Your task to perform on an android device: Empty the shopping cart on ebay. Search for "logitech g pro" on ebay, select the first entry, and add it to the cart. Image 0: 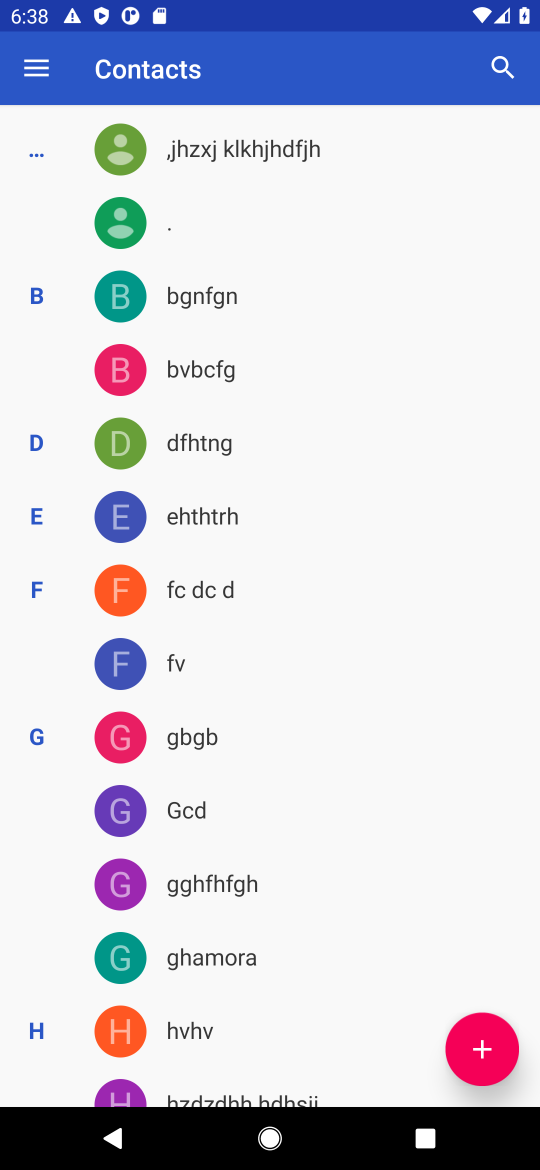
Step 0: press home button
Your task to perform on an android device: Empty the shopping cart on ebay. Search for "logitech g pro" on ebay, select the first entry, and add it to the cart. Image 1: 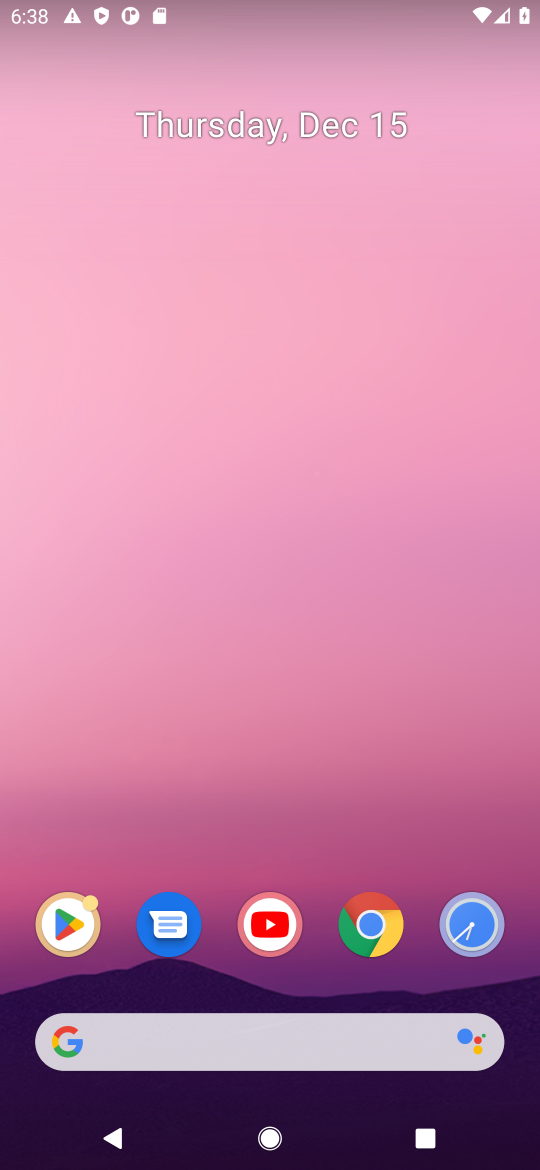
Step 1: click (375, 903)
Your task to perform on an android device: Empty the shopping cart on ebay. Search for "logitech g pro" on ebay, select the first entry, and add it to the cart. Image 2: 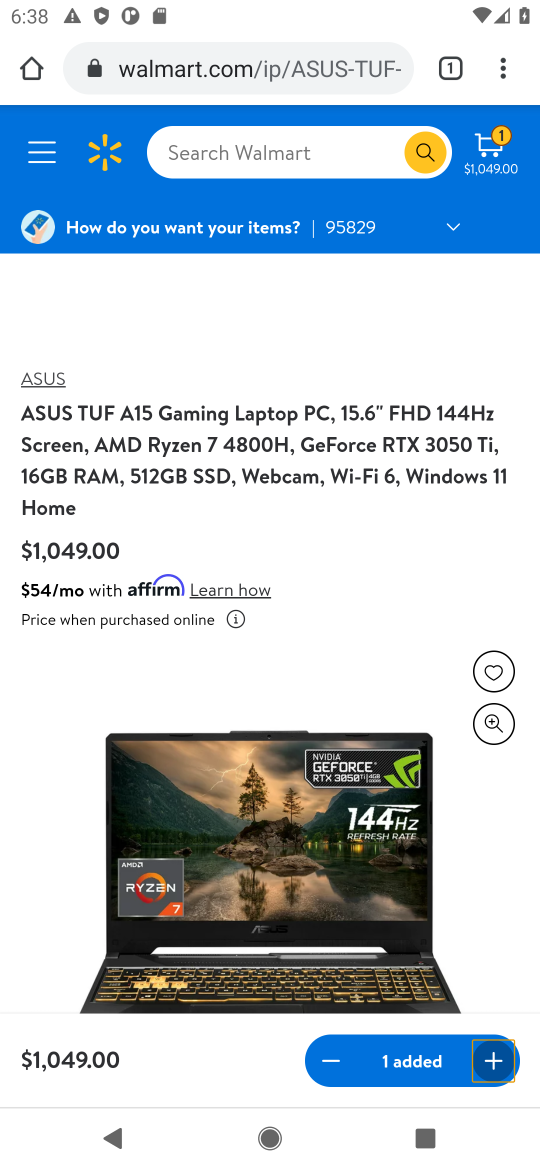
Step 2: click (172, 72)
Your task to perform on an android device: Empty the shopping cart on ebay. Search for "logitech g pro" on ebay, select the first entry, and add it to the cart. Image 3: 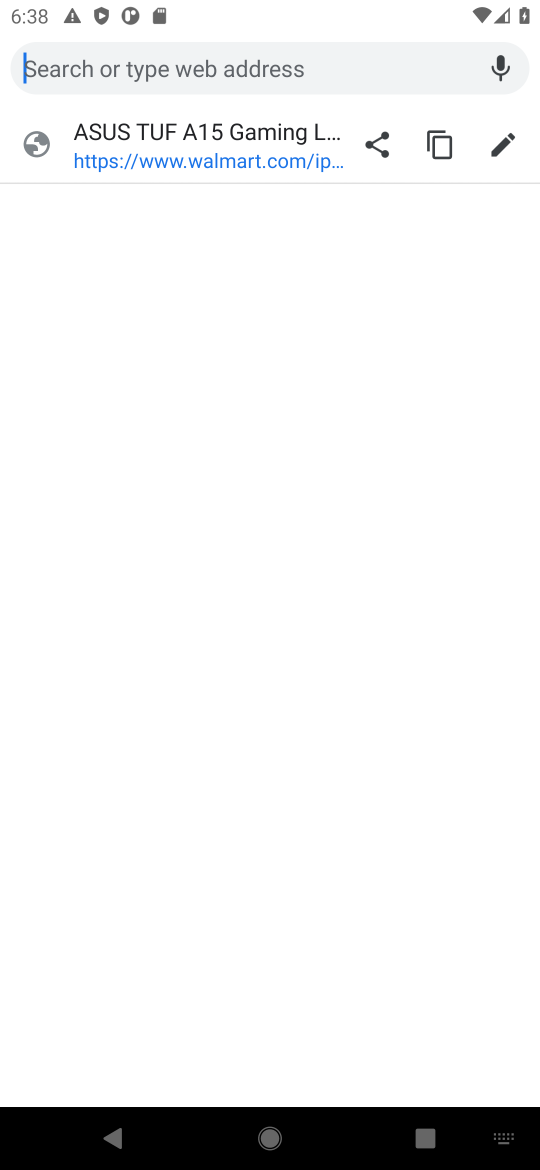
Step 3: type "ebay"
Your task to perform on an android device: Empty the shopping cart on ebay. Search for "logitech g pro" on ebay, select the first entry, and add it to the cart. Image 4: 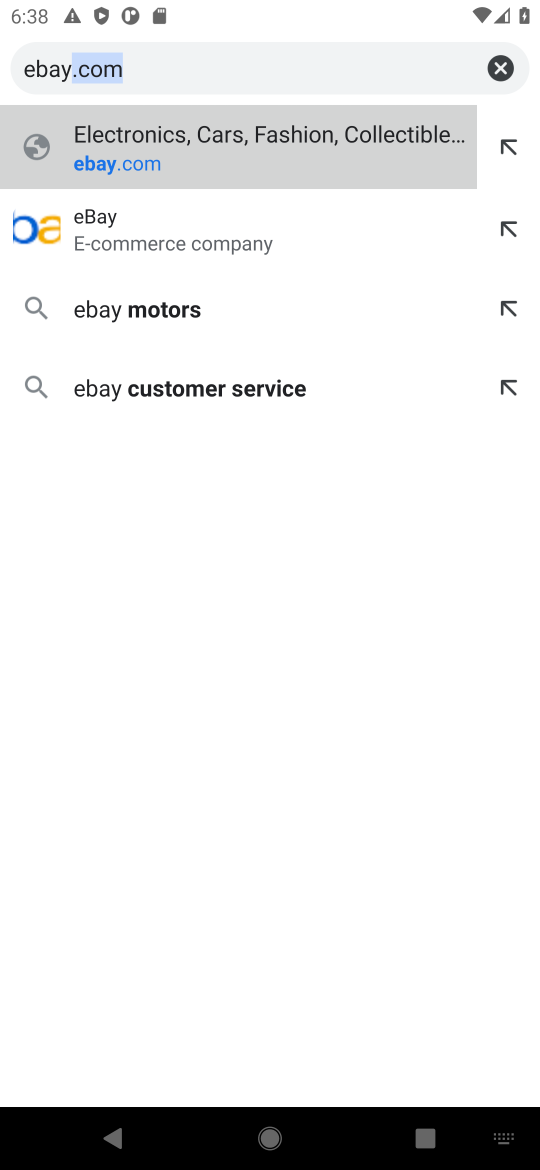
Step 4: click (210, 224)
Your task to perform on an android device: Empty the shopping cart on ebay. Search for "logitech g pro" on ebay, select the first entry, and add it to the cart. Image 5: 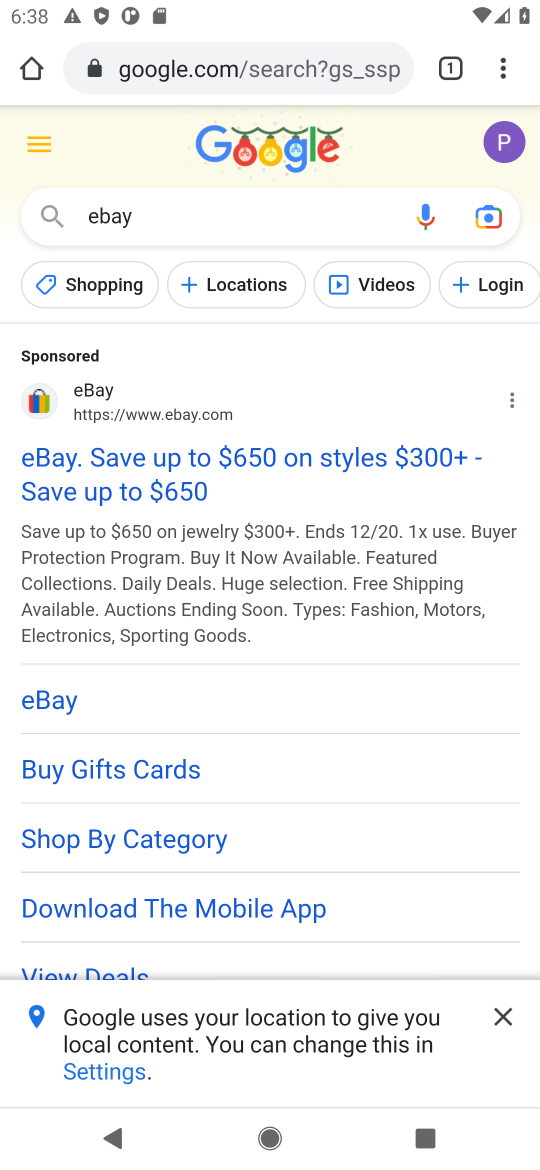
Step 5: click (40, 703)
Your task to perform on an android device: Empty the shopping cart on ebay. Search for "logitech g pro" on ebay, select the first entry, and add it to the cart. Image 6: 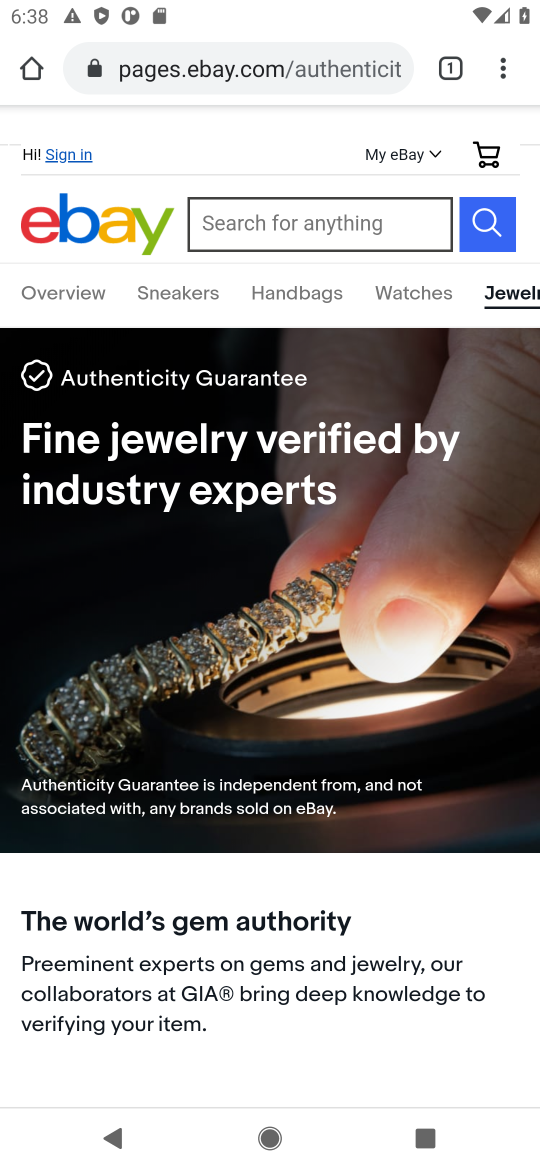
Step 6: click (484, 143)
Your task to perform on an android device: Empty the shopping cart on ebay. Search for "logitech g pro" on ebay, select the first entry, and add it to the cart. Image 7: 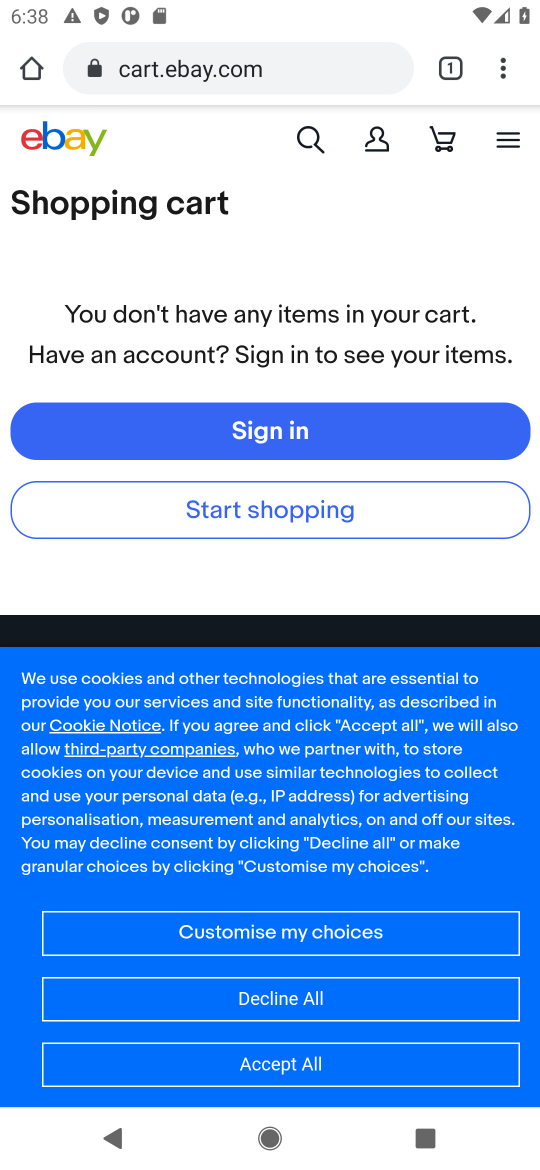
Step 7: click (314, 131)
Your task to perform on an android device: Empty the shopping cart on ebay. Search for "logitech g pro" on ebay, select the first entry, and add it to the cart. Image 8: 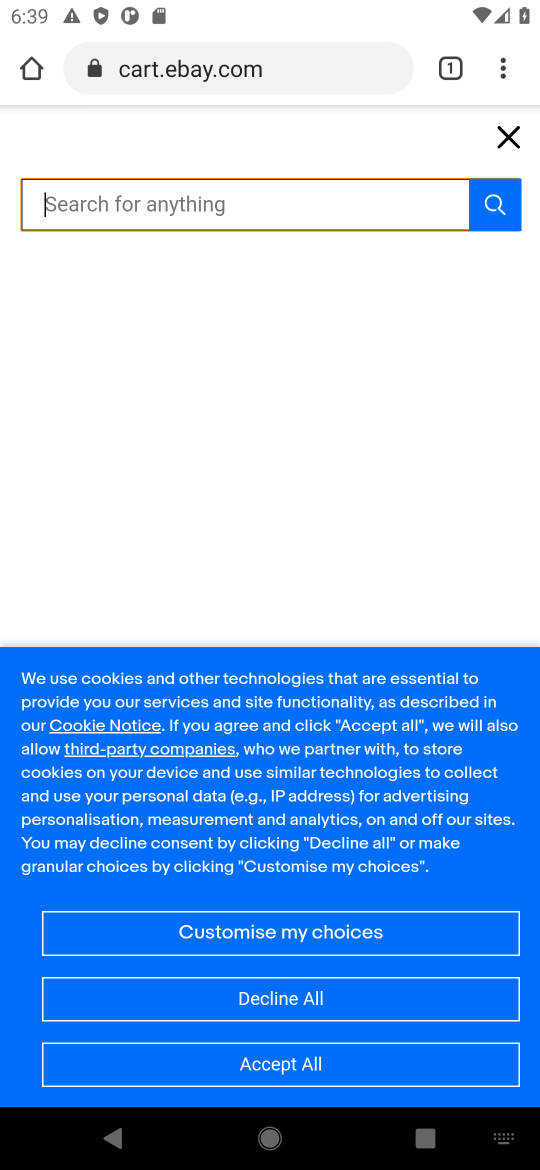
Step 8: type "logitech g pro"
Your task to perform on an android device: Empty the shopping cart on ebay. Search for "logitech g pro" on ebay, select the first entry, and add it to the cart. Image 9: 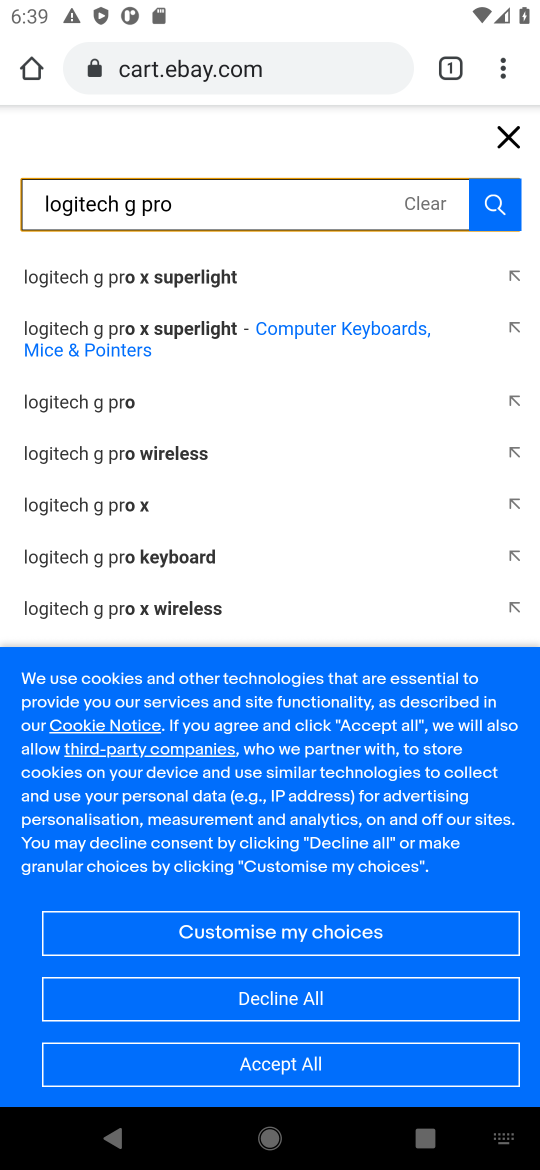
Step 9: click (507, 218)
Your task to perform on an android device: Empty the shopping cart on ebay. Search for "logitech g pro" on ebay, select the first entry, and add it to the cart. Image 10: 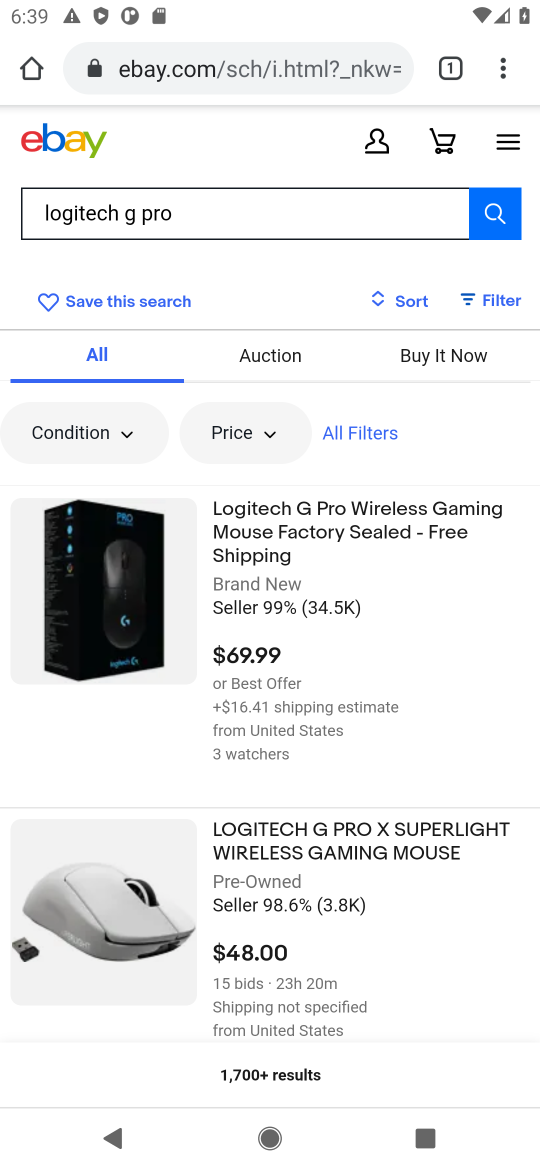
Step 10: click (321, 522)
Your task to perform on an android device: Empty the shopping cart on ebay. Search for "logitech g pro" on ebay, select the first entry, and add it to the cart. Image 11: 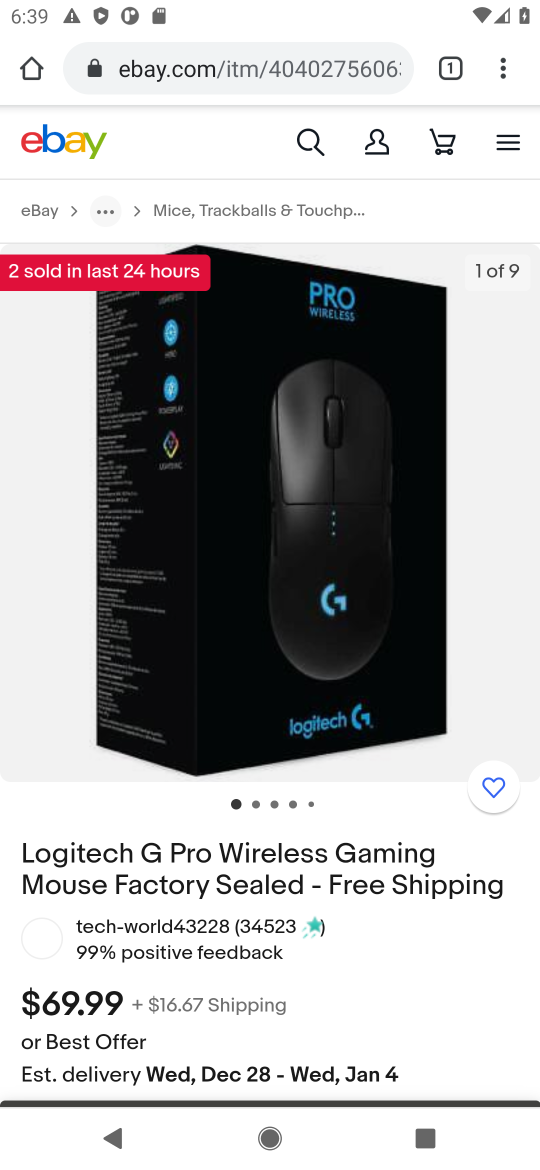
Step 11: drag from (304, 987) to (266, 431)
Your task to perform on an android device: Empty the shopping cart on ebay. Search for "logitech g pro" on ebay, select the first entry, and add it to the cart. Image 12: 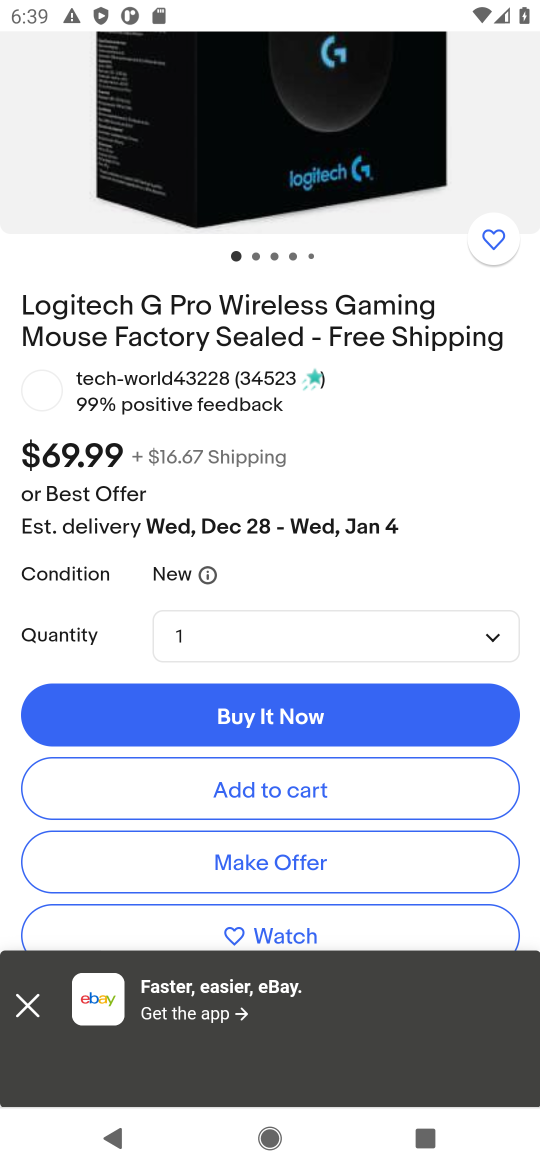
Step 12: click (308, 782)
Your task to perform on an android device: Empty the shopping cart on ebay. Search for "logitech g pro" on ebay, select the first entry, and add it to the cart. Image 13: 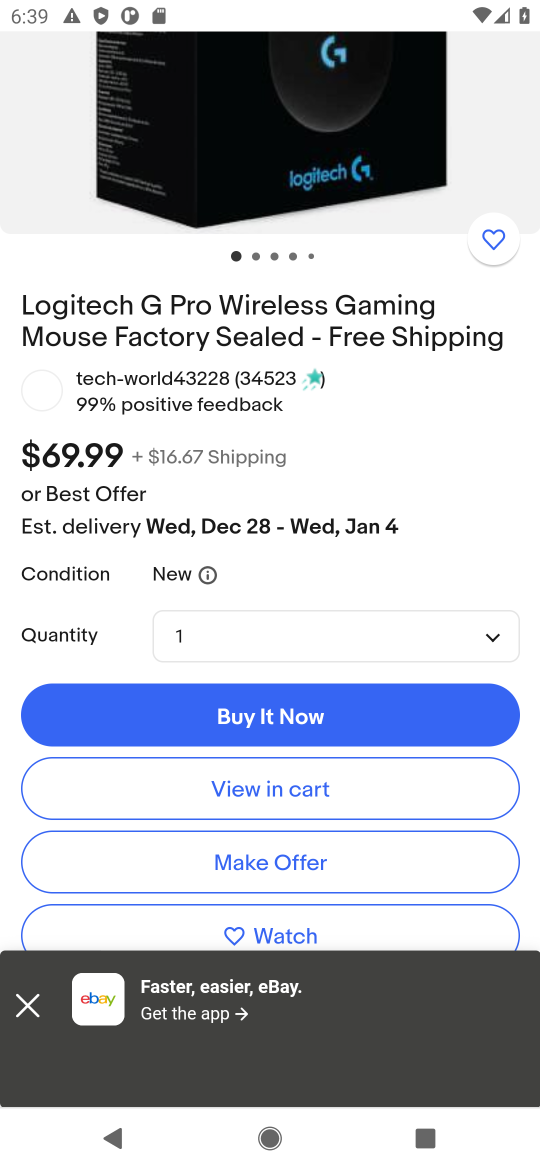
Step 13: task complete